Your task to perform on an android device: delete a single message in the gmail app Image 0: 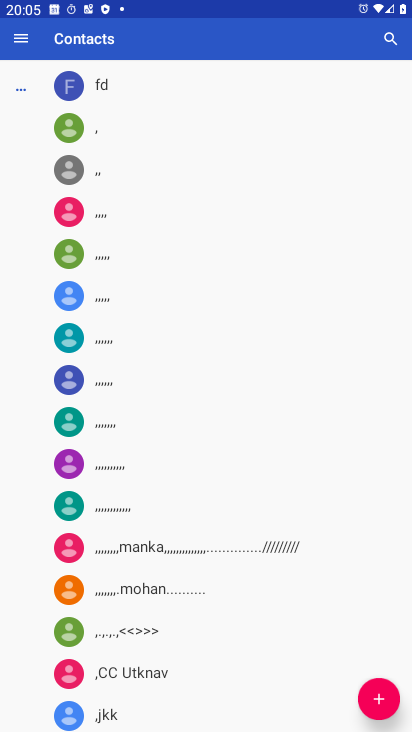
Step 0: press home button
Your task to perform on an android device: delete a single message in the gmail app Image 1: 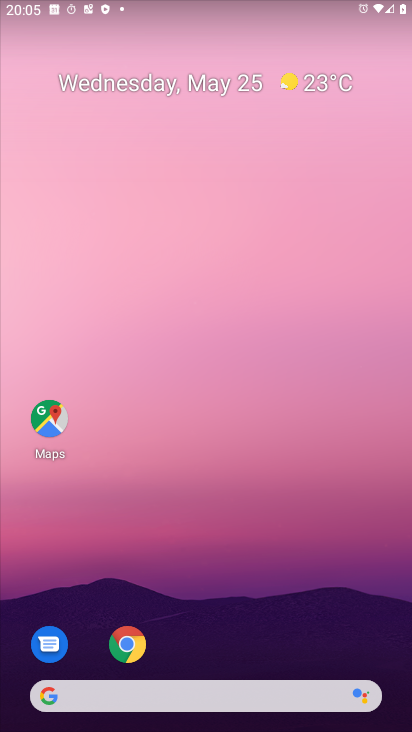
Step 1: drag from (284, 703) to (227, 83)
Your task to perform on an android device: delete a single message in the gmail app Image 2: 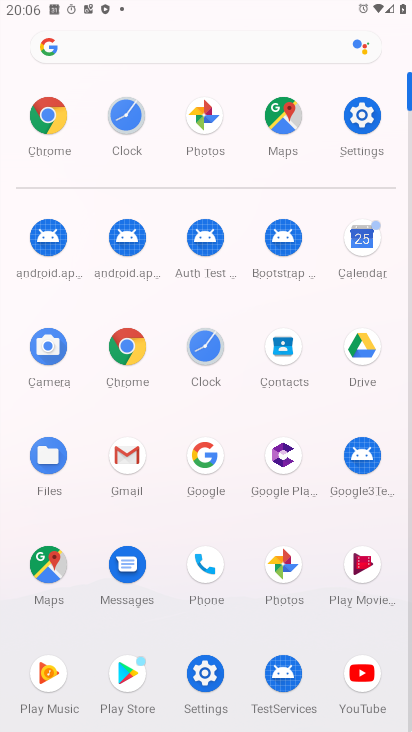
Step 2: click (129, 452)
Your task to perform on an android device: delete a single message in the gmail app Image 3: 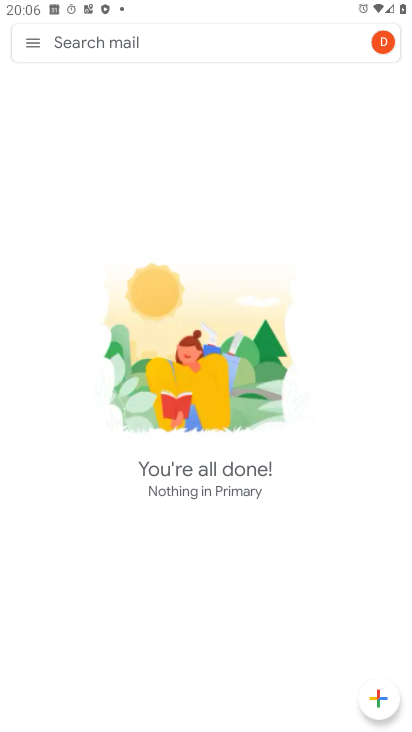
Step 3: click (23, 51)
Your task to perform on an android device: delete a single message in the gmail app Image 4: 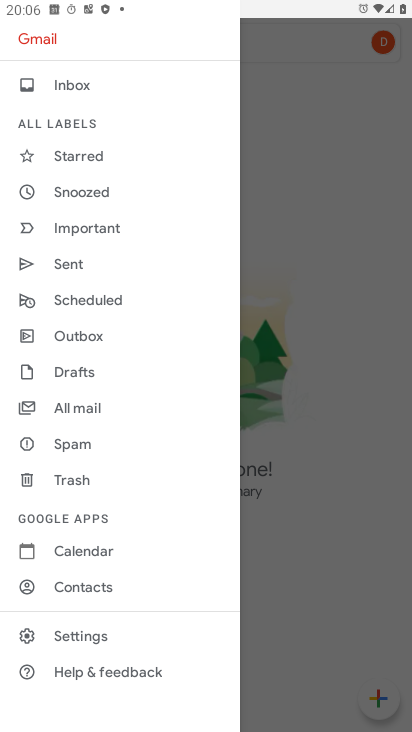
Step 4: click (309, 396)
Your task to perform on an android device: delete a single message in the gmail app Image 5: 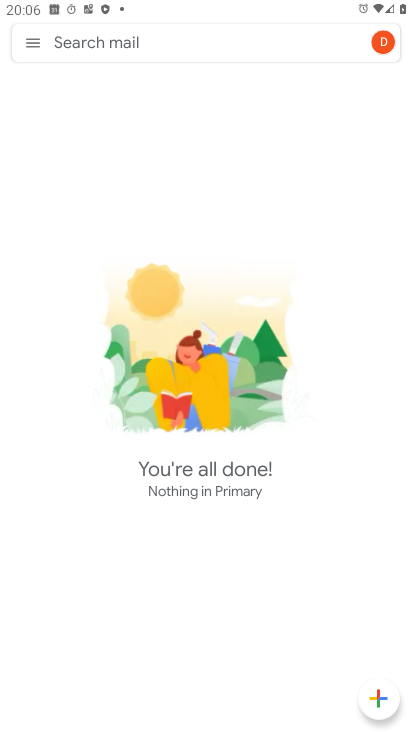
Step 5: task complete